Your task to perform on an android device: Search for jbl flip 4 on target, select the first entry, and add it to the cart. Image 0: 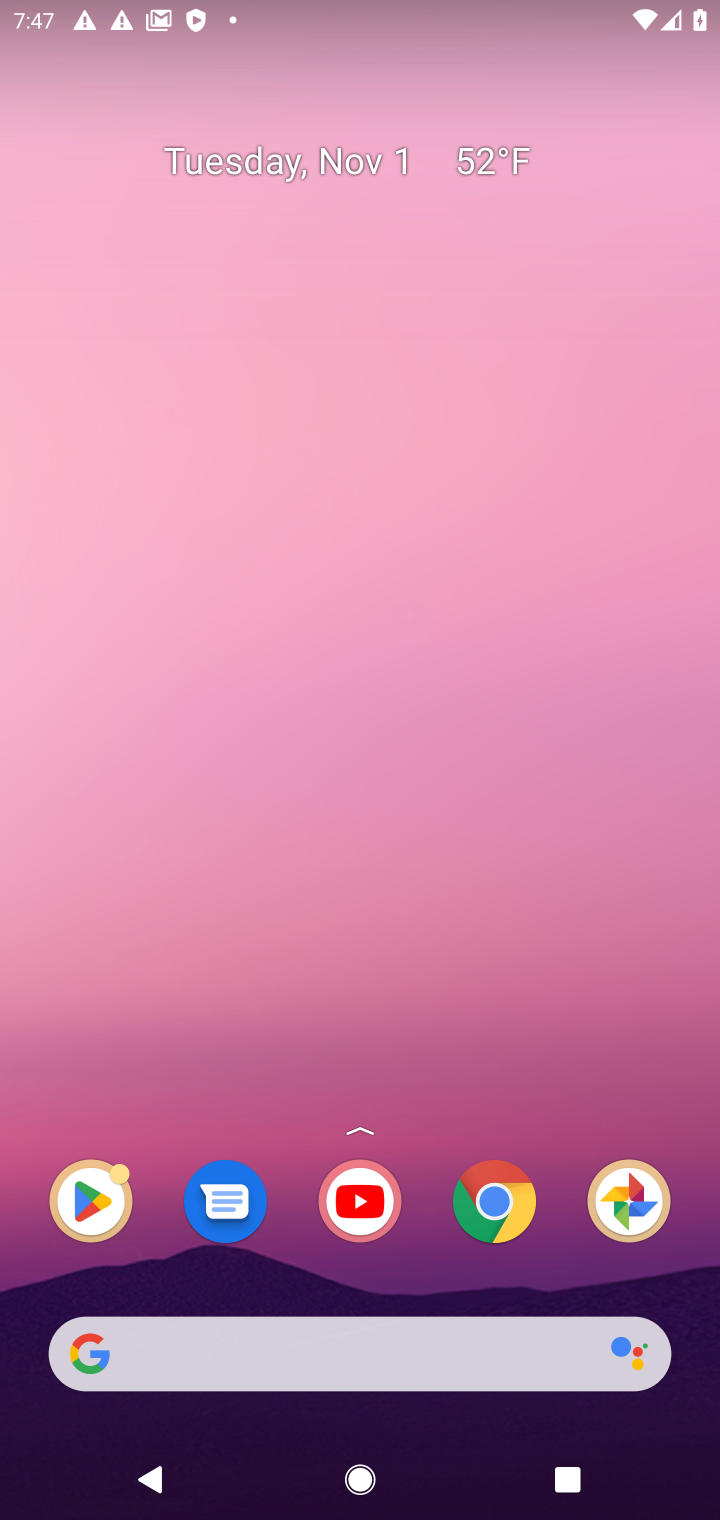
Step 0: click (496, 1208)
Your task to perform on an android device: Search for jbl flip 4 on target, select the first entry, and add it to the cart. Image 1: 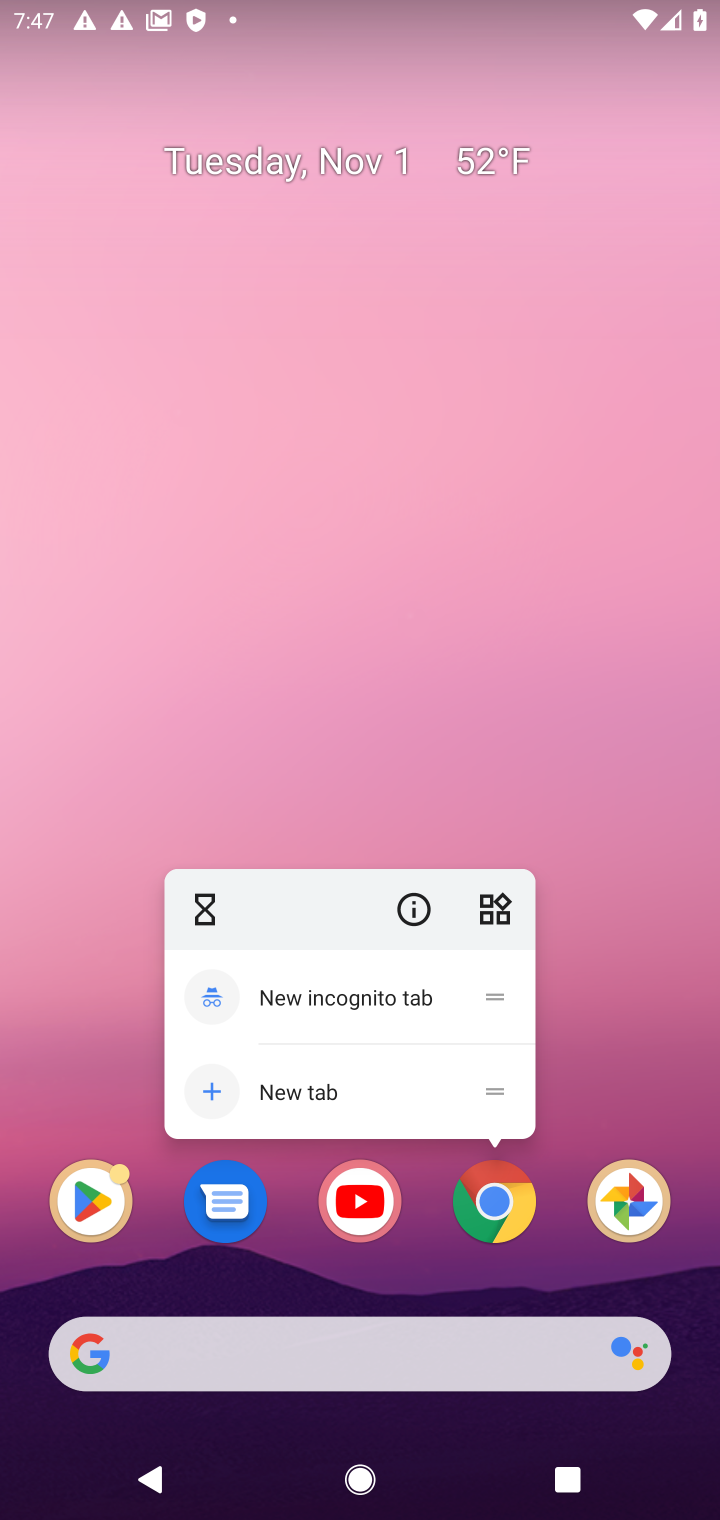
Step 1: click (491, 1211)
Your task to perform on an android device: Search for jbl flip 4 on target, select the first entry, and add it to the cart. Image 2: 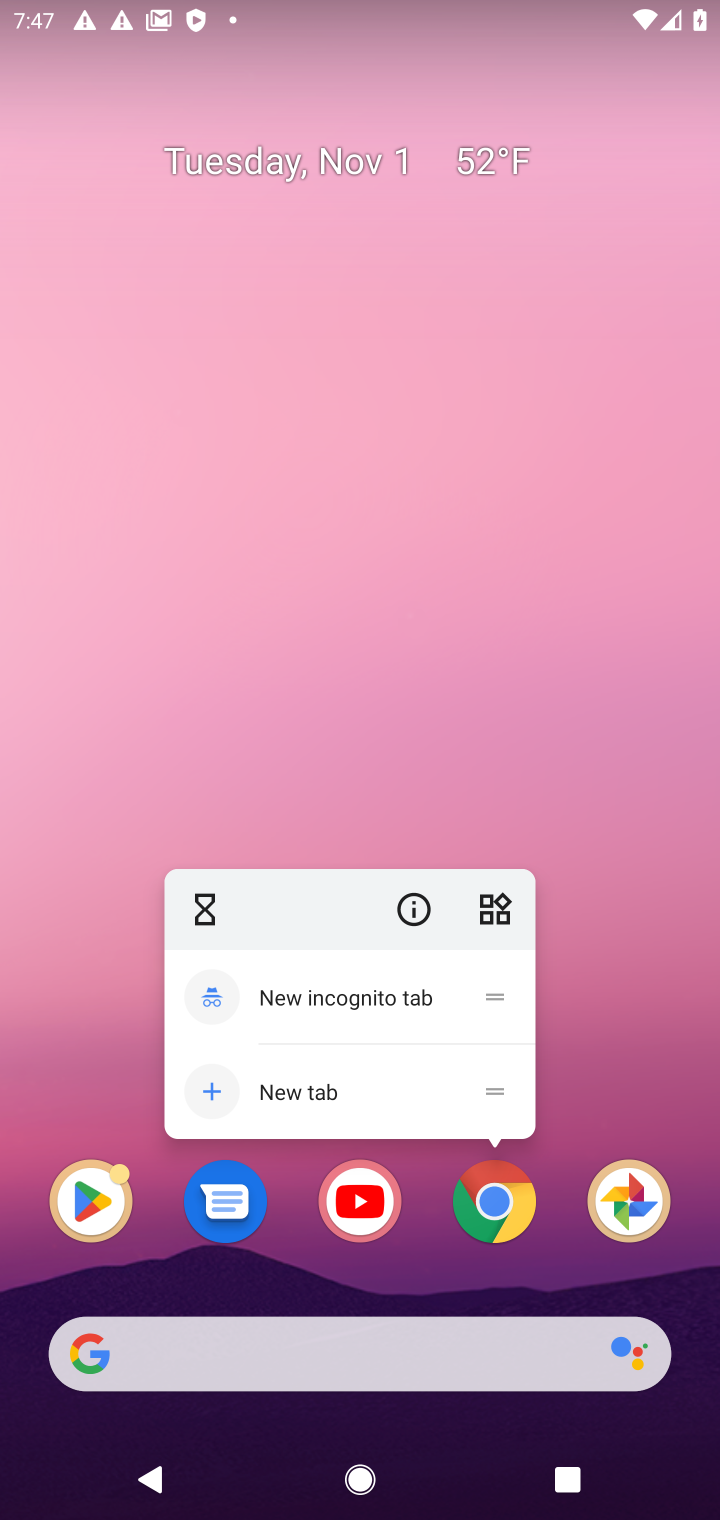
Step 2: click (489, 1207)
Your task to perform on an android device: Search for jbl flip 4 on target, select the first entry, and add it to the cart. Image 3: 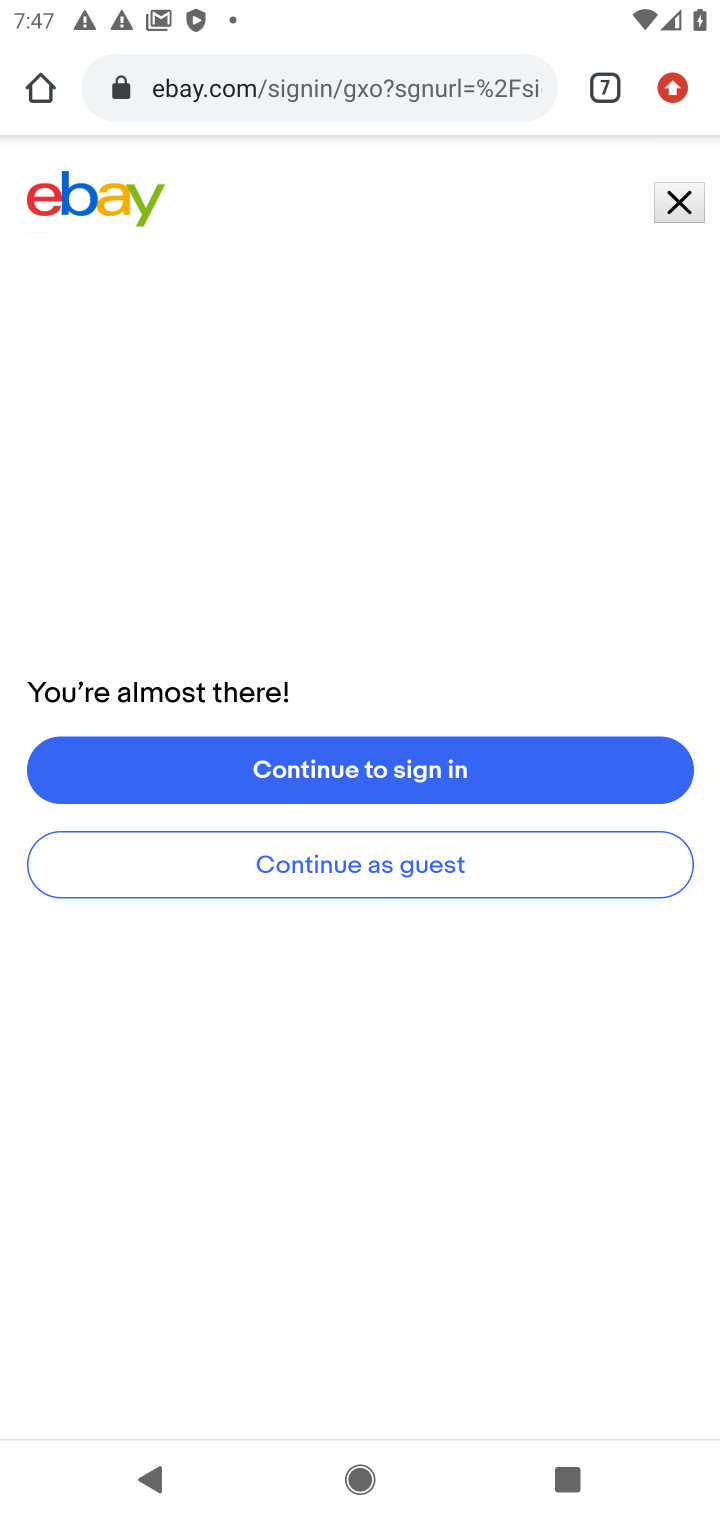
Step 3: click (272, 89)
Your task to perform on an android device: Search for jbl flip 4 on target, select the first entry, and add it to the cart. Image 4: 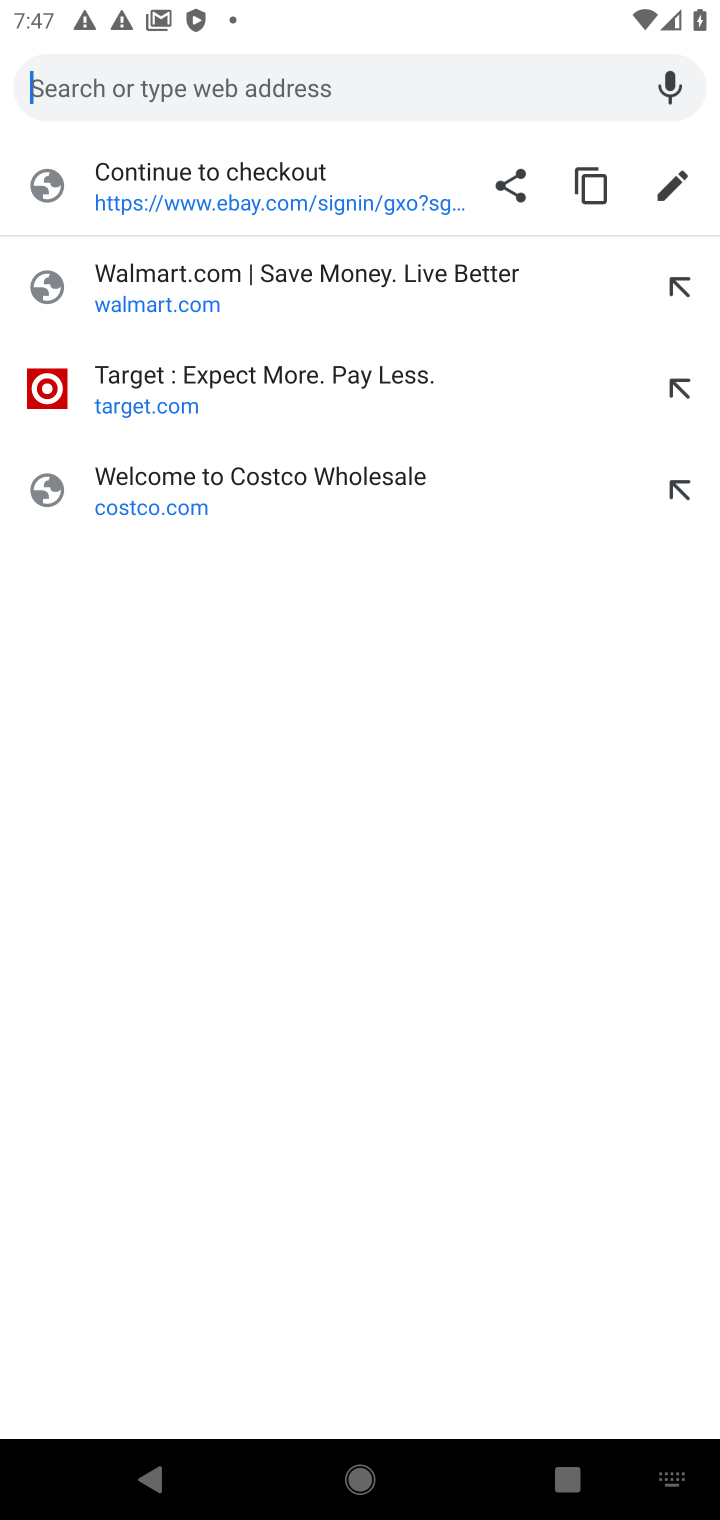
Step 4: click (196, 383)
Your task to perform on an android device: Search for jbl flip 4 on target, select the first entry, and add it to the cart. Image 5: 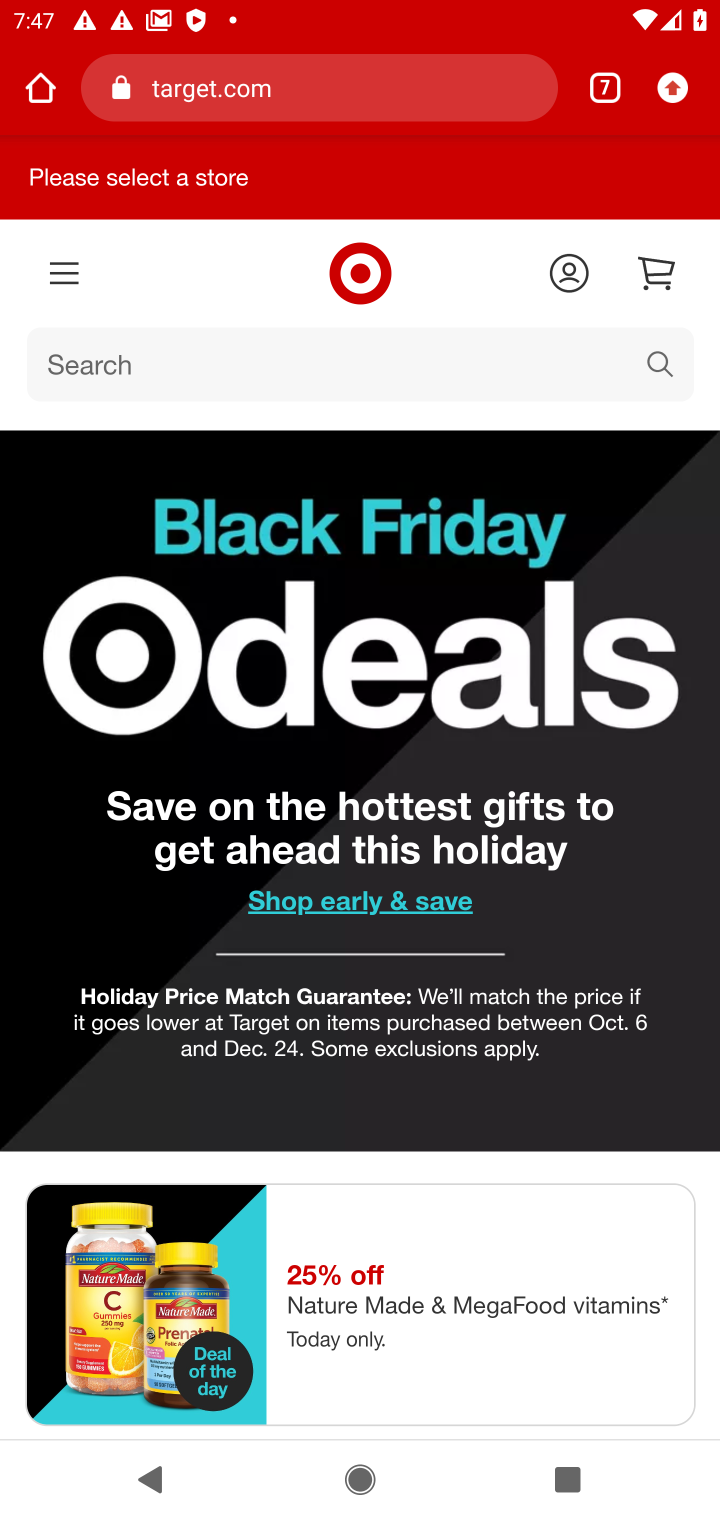
Step 5: click (447, 365)
Your task to perform on an android device: Search for jbl flip 4 on target, select the first entry, and add it to the cart. Image 6: 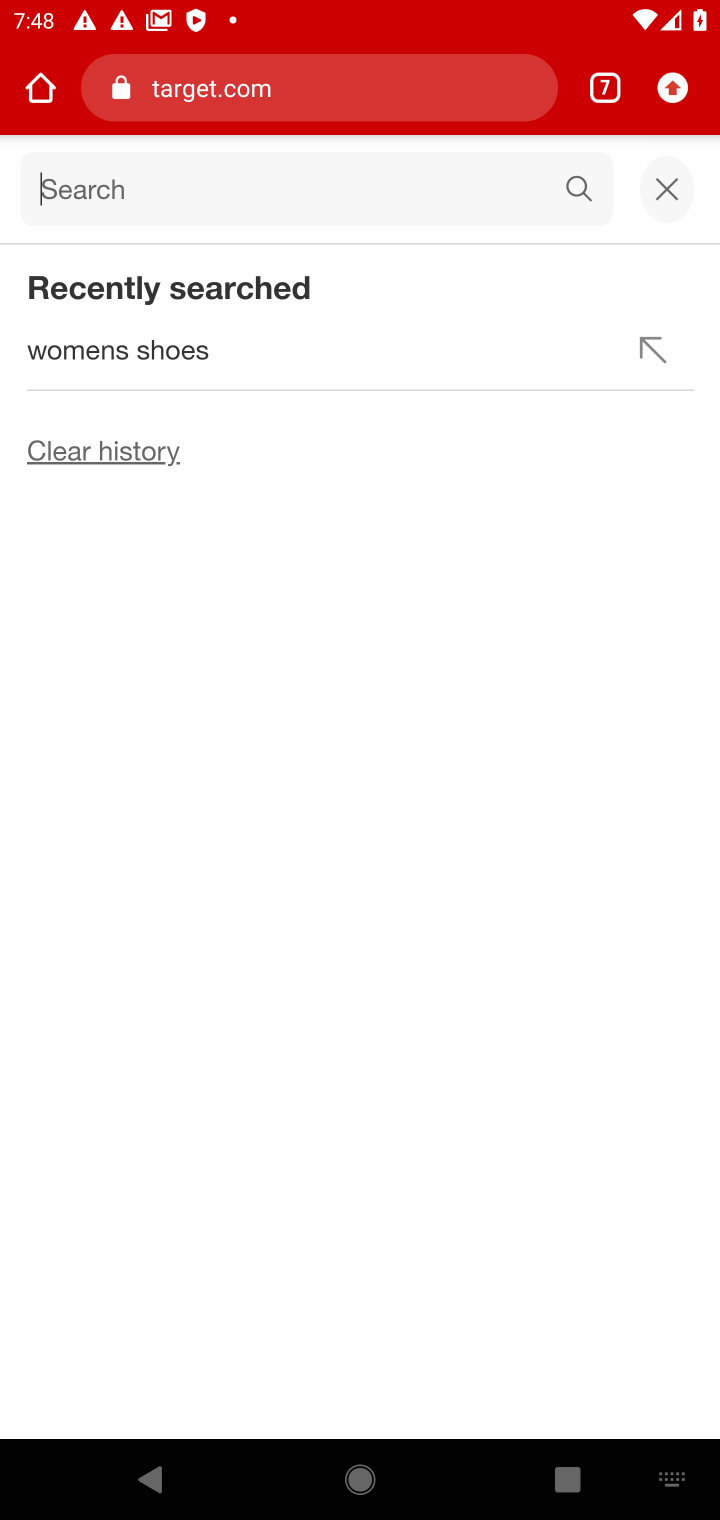
Step 6: type "jbl flip 4"
Your task to perform on an android device: Search for jbl flip 4 on target, select the first entry, and add it to the cart. Image 7: 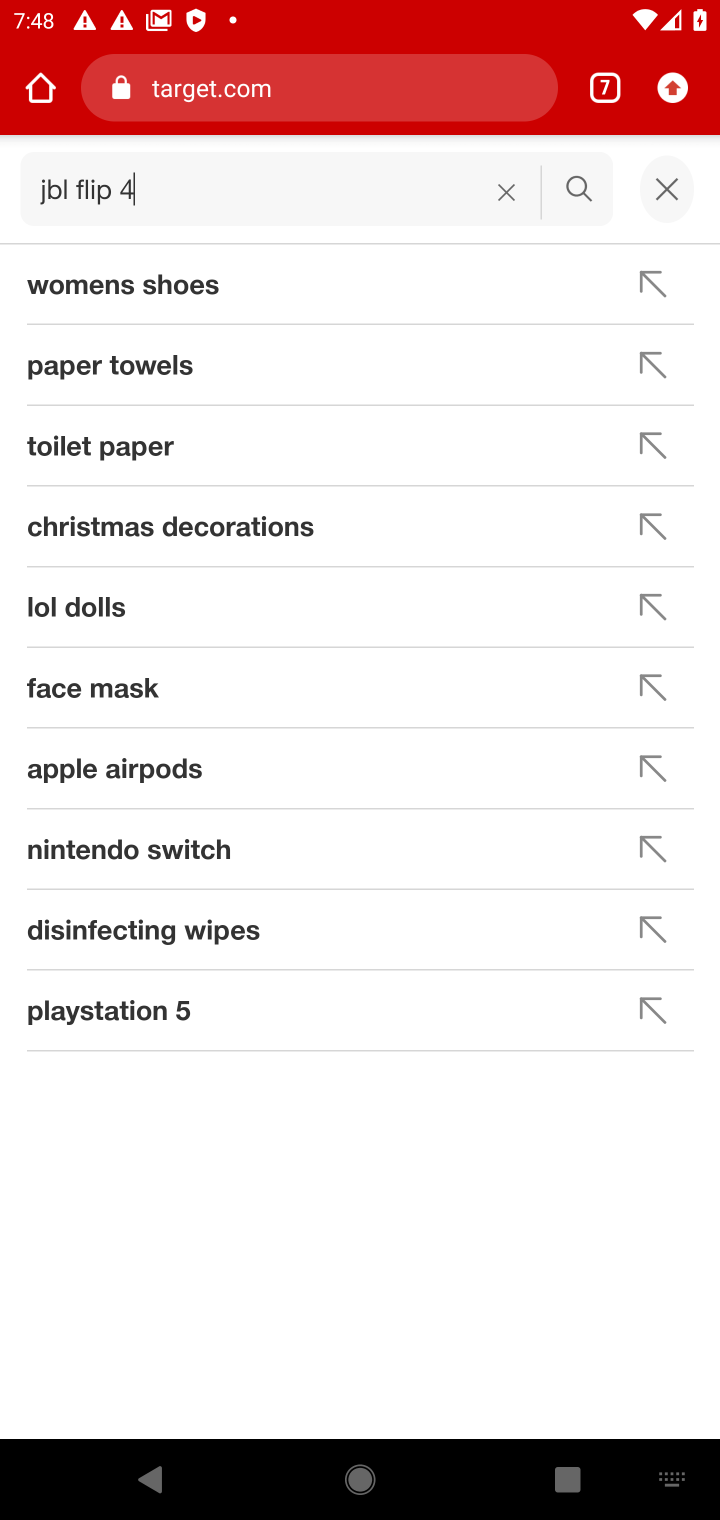
Step 7: type ""
Your task to perform on an android device: Search for jbl flip 4 on target, select the first entry, and add it to the cart. Image 8: 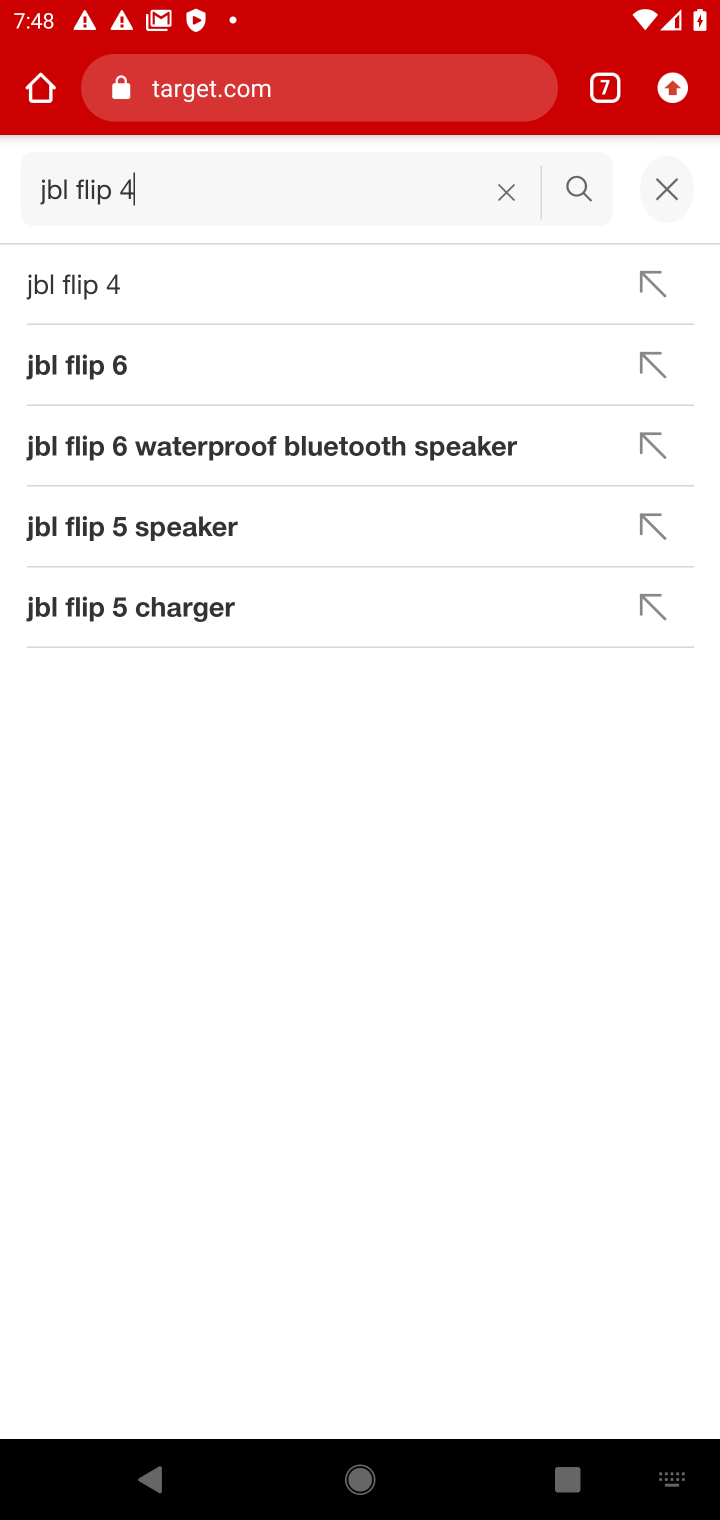
Step 8: click (591, 202)
Your task to perform on an android device: Search for jbl flip 4 on target, select the first entry, and add it to the cart. Image 9: 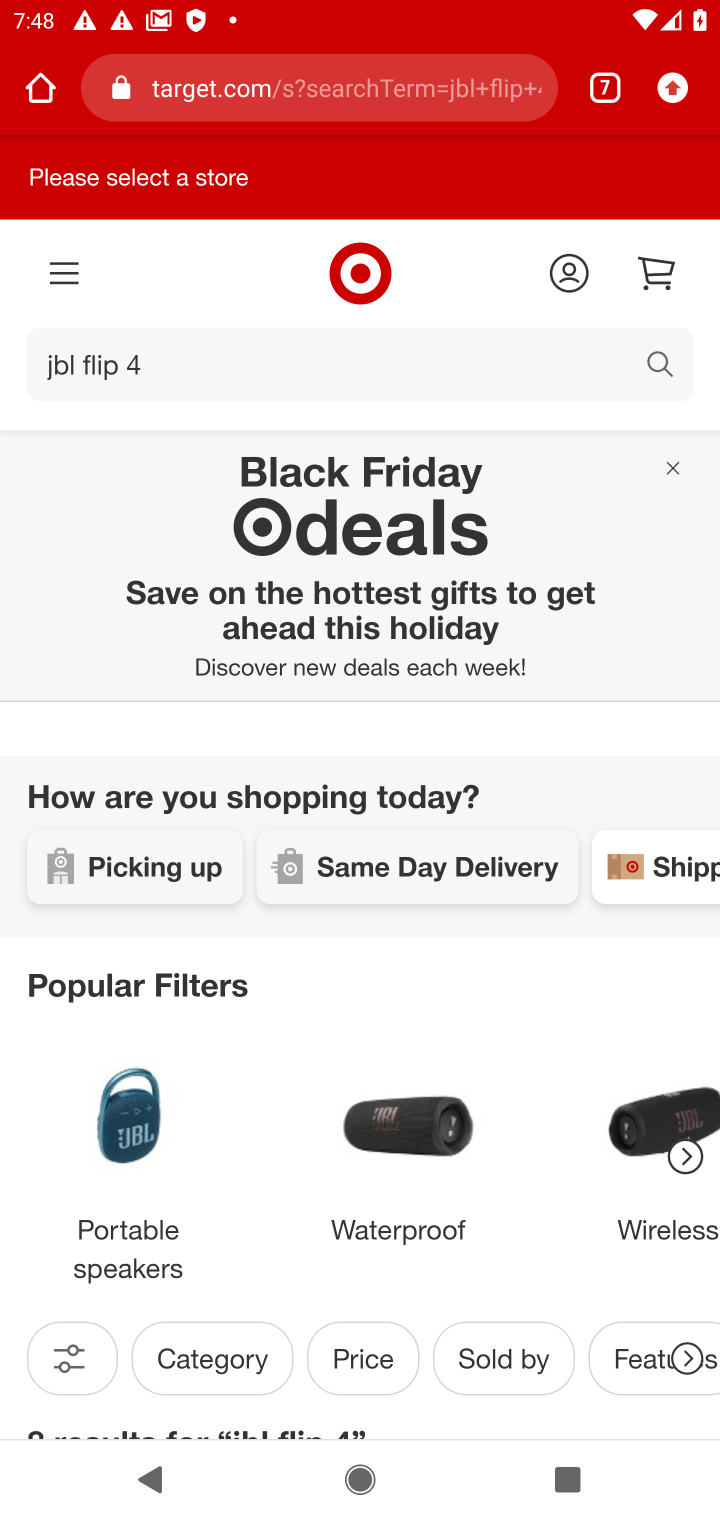
Step 9: drag from (284, 1245) to (201, 435)
Your task to perform on an android device: Search for jbl flip 4 on target, select the first entry, and add it to the cart. Image 10: 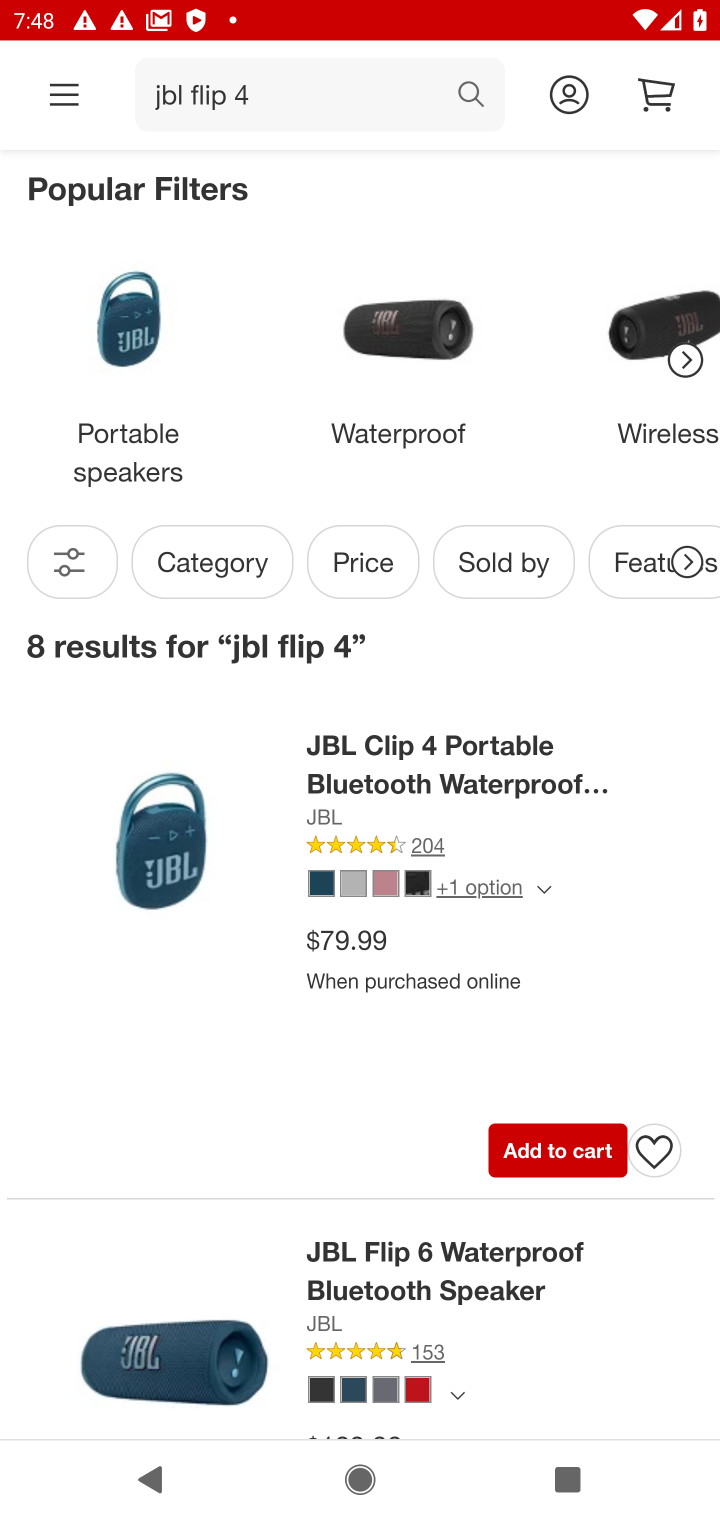
Step 10: click (533, 1143)
Your task to perform on an android device: Search for jbl flip 4 on target, select the first entry, and add it to the cart. Image 11: 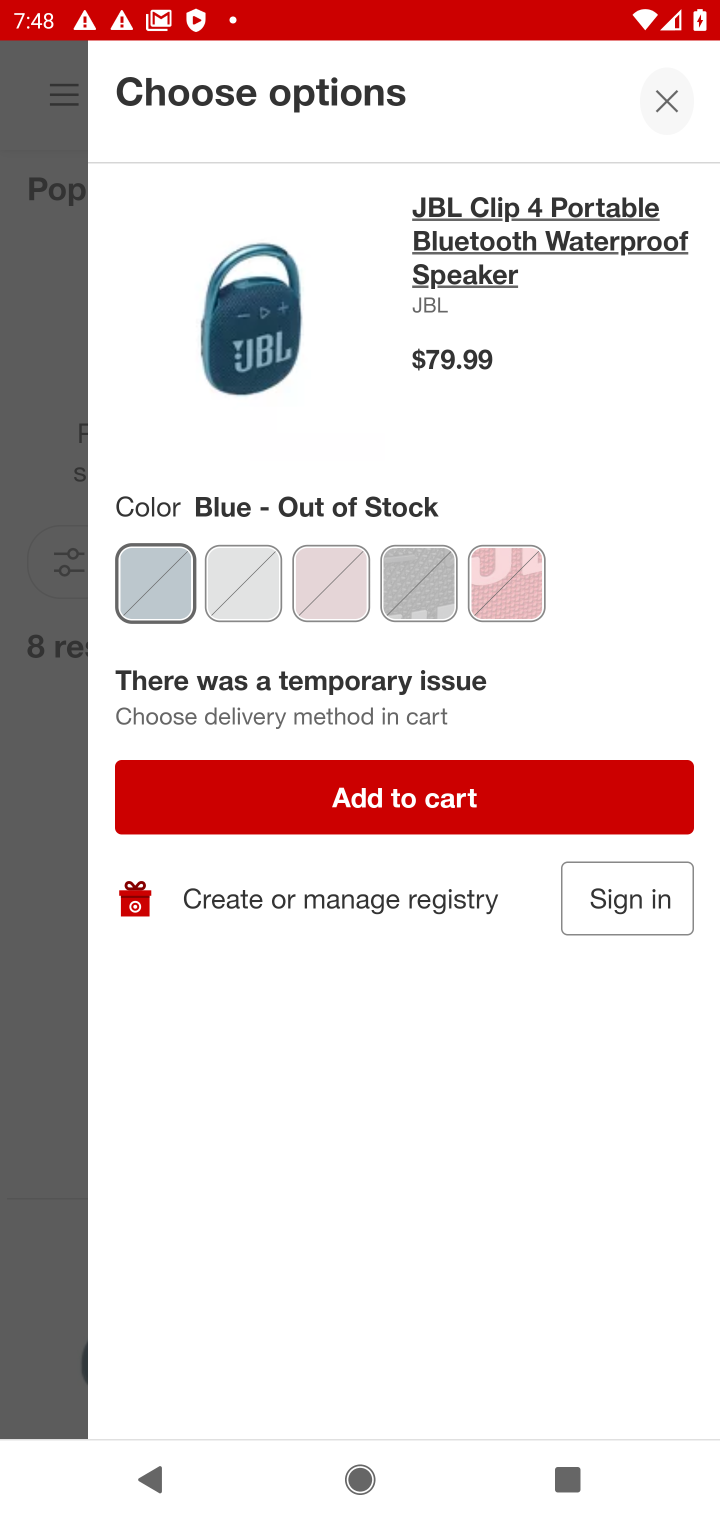
Step 11: click (432, 789)
Your task to perform on an android device: Search for jbl flip 4 on target, select the first entry, and add it to the cart. Image 12: 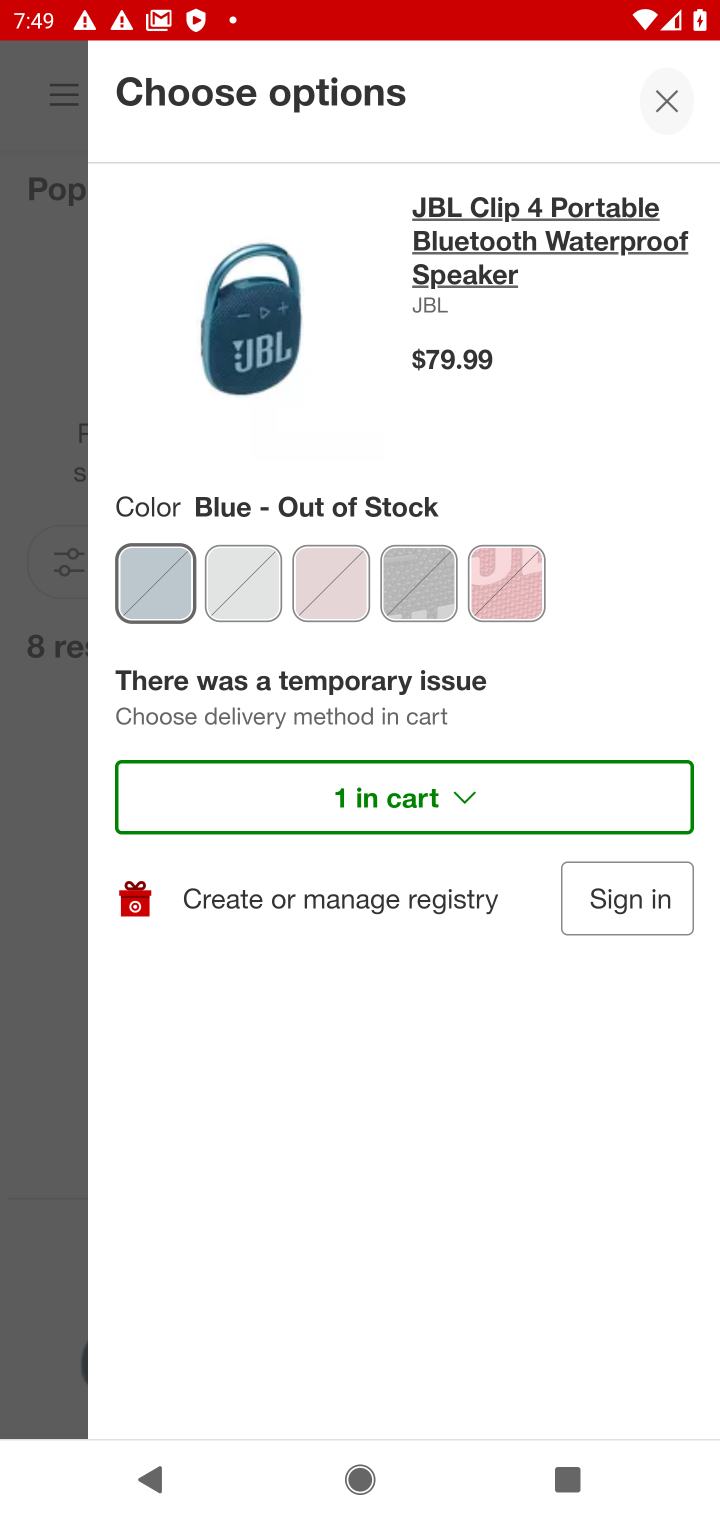
Step 12: task complete